Your task to perform on an android device: add a contact Image 0: 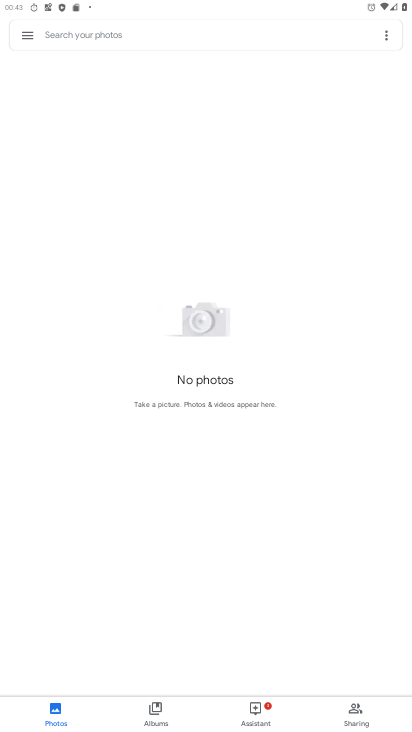
Step 0: press home button
Your task to perform on an android device: add a contact Image 1: 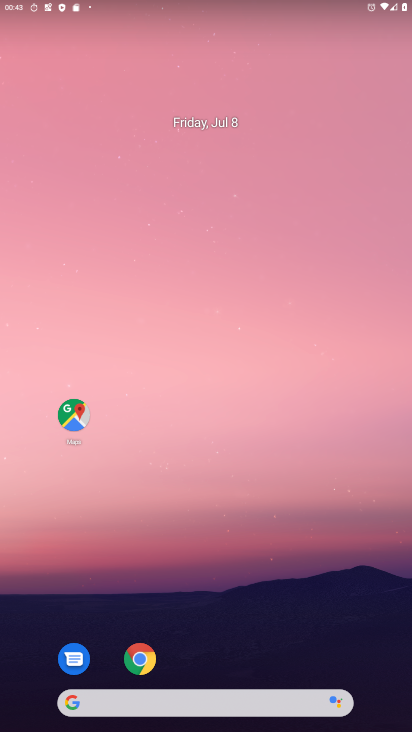
Step 1: drag from (204, 660) to (272, 41)
Your task to perform on an android device: add a contact Image 2: 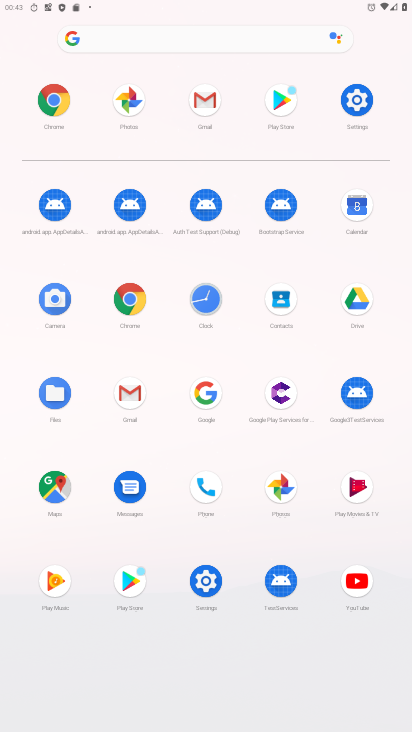
Step 2: click (209, 498)
Your task to perform on an android device: add a contact Image 3: 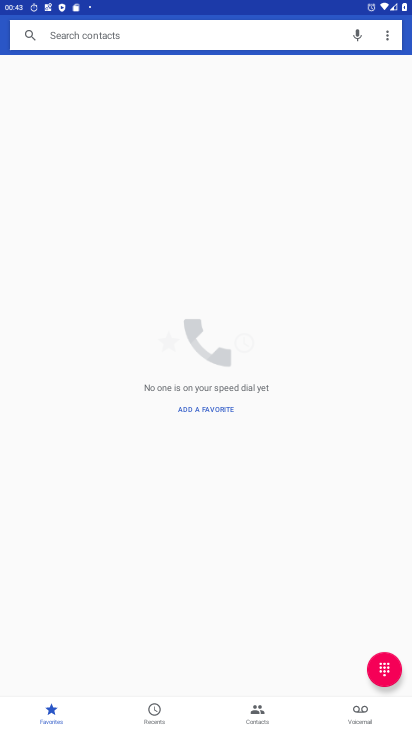
Step 3: click (384, 674)
Your task to perform on an android device: add a contact Image 4: 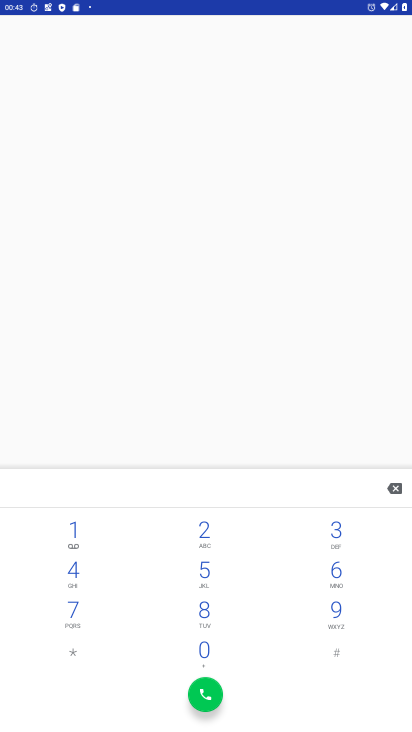
Step 4: press back button
Your task to perform on an android device: add a contact Image 5: 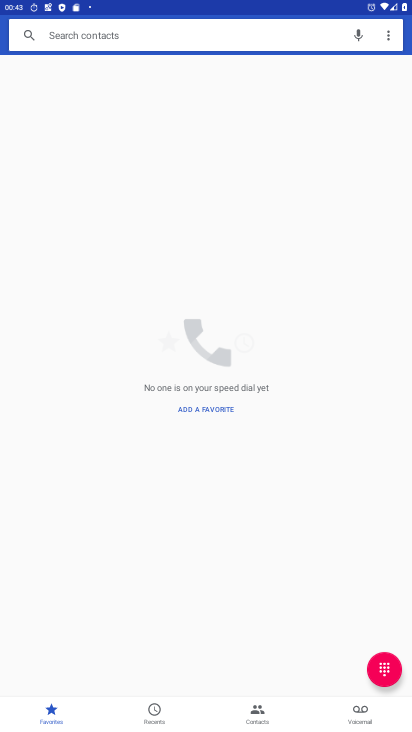
Step 5: click (256, 710)
Your task to perform on an android device: add a contact Image 6: 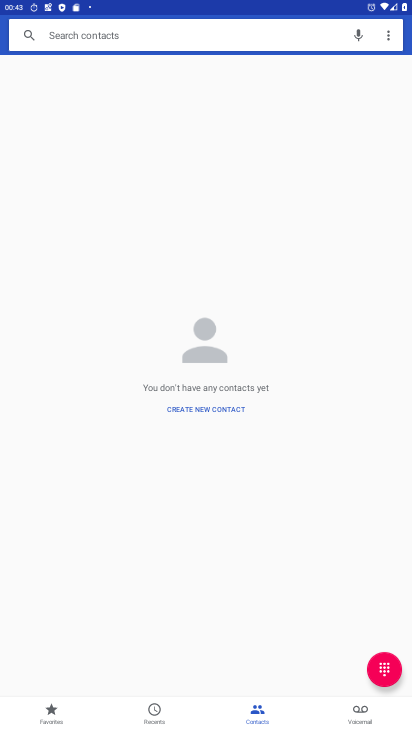
Step 6: click (201, 419)
Your task to perform on an android device: add a contact Image 7: 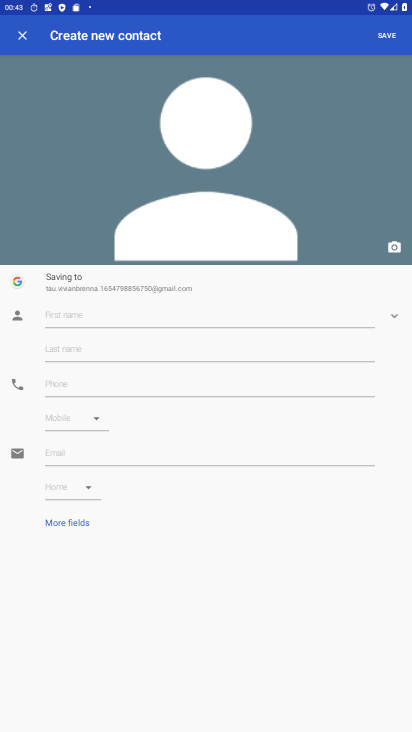
Step 7: click (129, 307)
Your task to perform on an android device: add a contact Image 8: 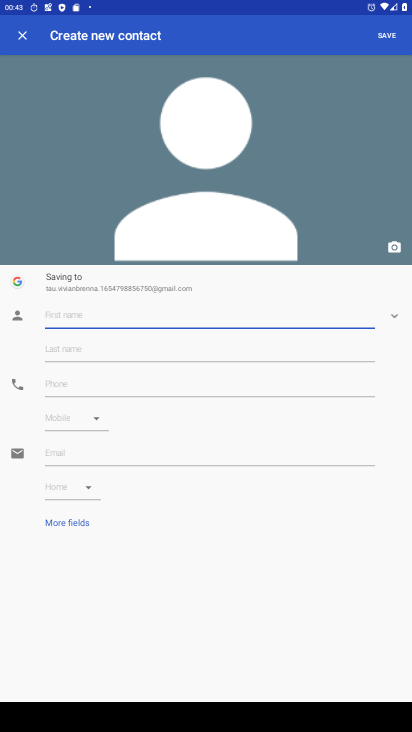
Step 8: type ","
Your task to perform on an android device: add a contact Image 9: 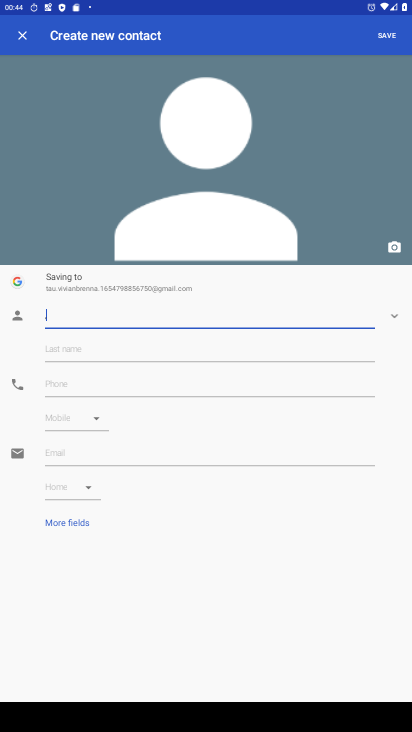
Step 9: click (110, 368)
Your task to perform on an android device: add a contact Image 10: 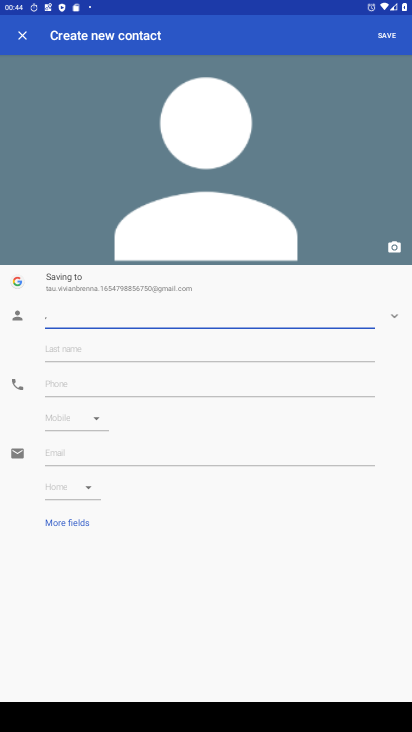
Step 10: click (73, 379)
Your task to perform on an android device: add a contact Image 11: 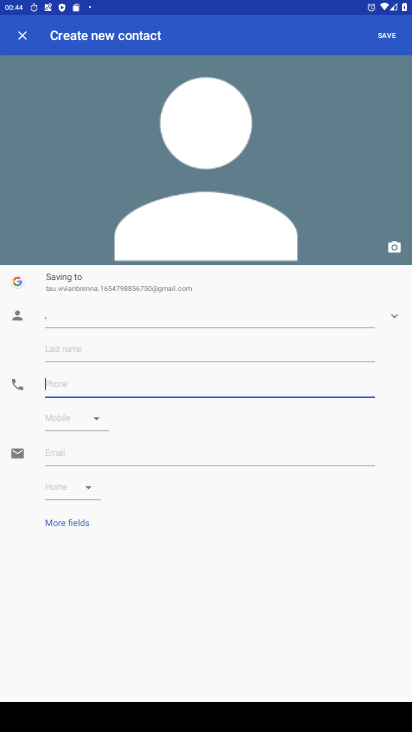
Step 11: type "9876543567890"
Your task to perform on an android device: add a contact Image 12: 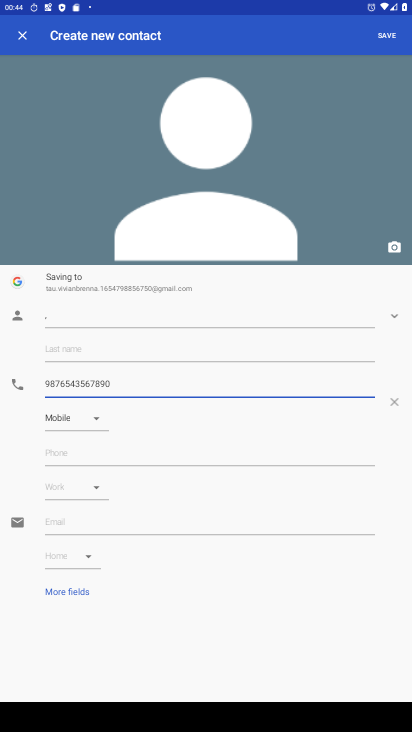
Step 12: click (388, 44)
Your task to perform on an android device: add a contact Image 13: 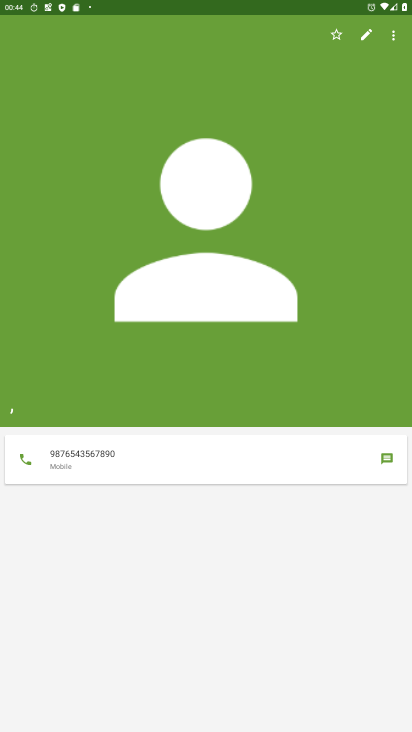
Step 13: task complete